Your task to perform on an android device: Set the phone to "Do not disturb". Image 0: 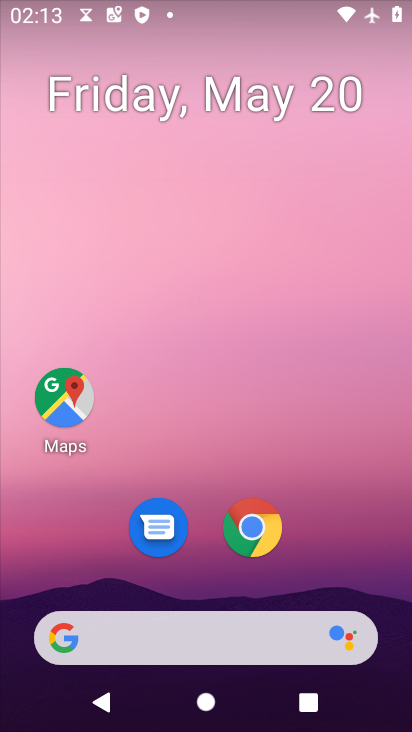
Step 0: press home button
Your task to perform on an android device: Set the phone to "Do not disturb". Image 1: 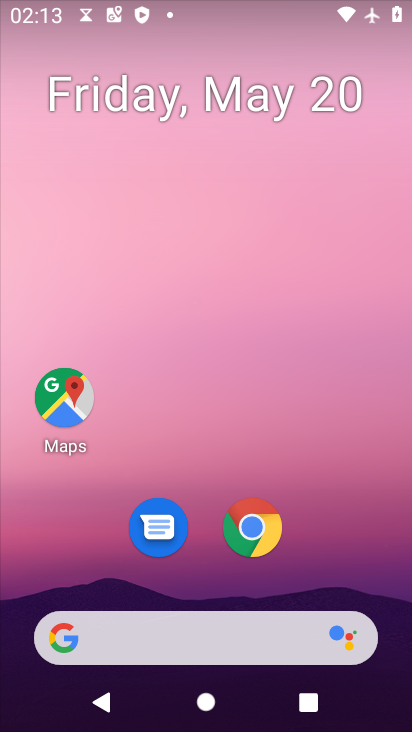
Step 1: drag from (200, 635) to (322, 138)
Your task to perform on an android device: Set the phone to "Do not disturb". Image 2: 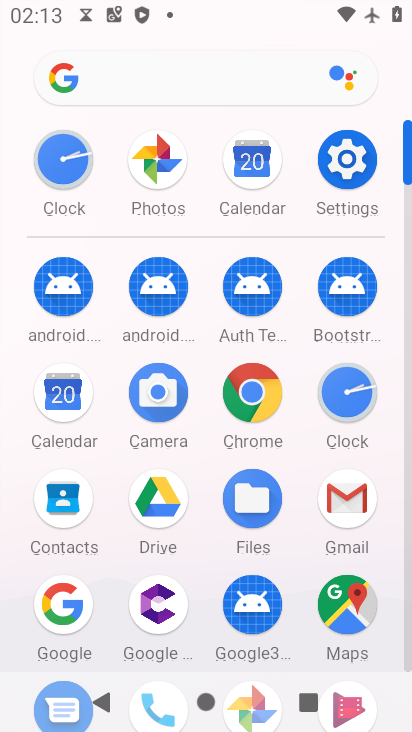
Step 2: click (351, 163)
Your task to perform on an android device: Set the phone to "Do not disturb". Image 3: 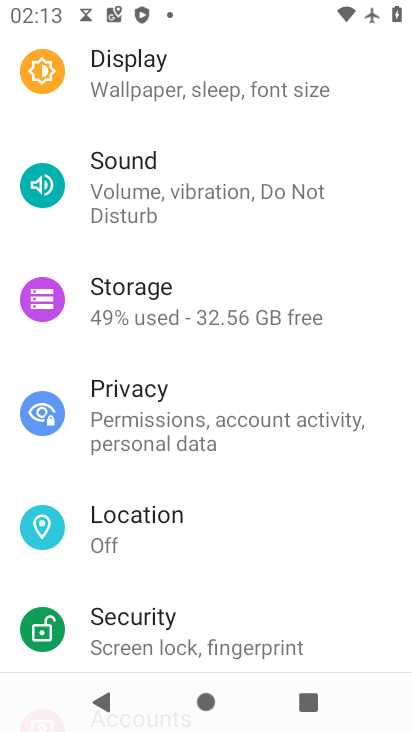
Step 3: click (182, 192)
Your task to perform on an android device: Set the phone to "Do not disturb". Image 4: 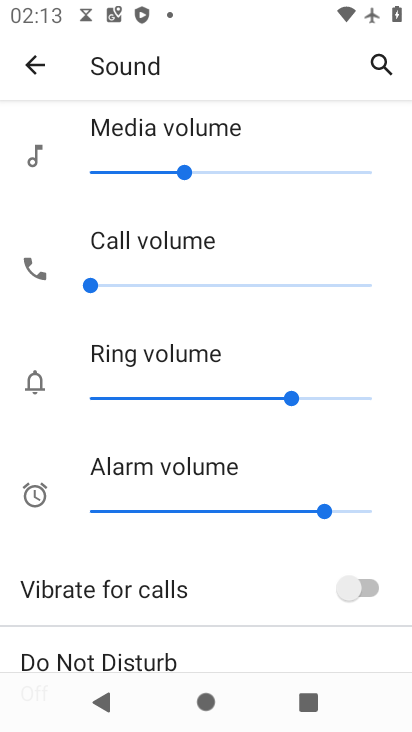
Step 4: drag from (217, 593) to (292, 229)
Your task to perform on an android device: Set the phone to "Do not disturb". Image 5: 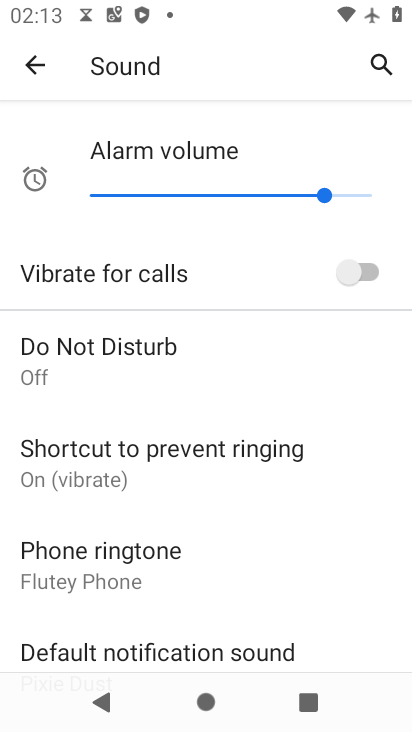
Step 5: click (116, 357)
Your task to perform on an android device: Set the phone to "Do not disturb". Image 6: 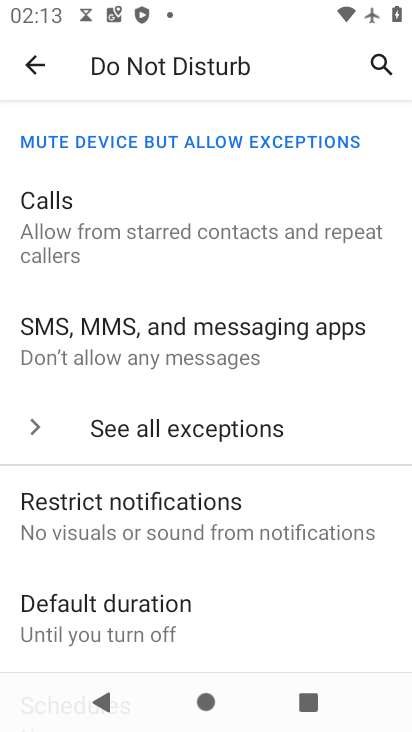
Step 6: drag from (196, 611) to (270, 163)
Your task to perform on an android device: Set the phone to "Do not disturb". Image 7: 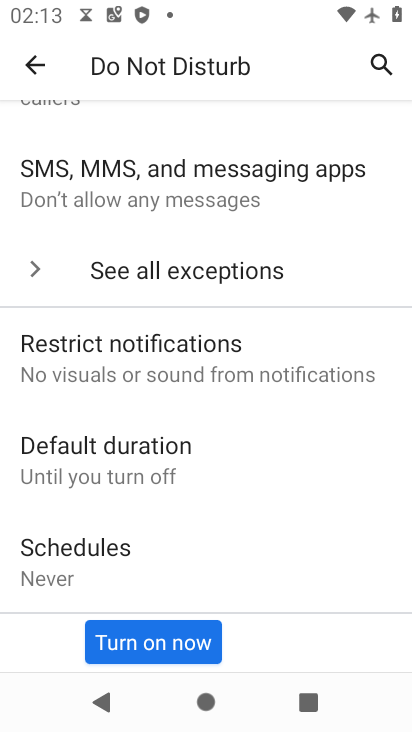
Step 7: click (155, 641)
Your task to perform on an android device: Set the phone to "Do not disturb". Image 8: 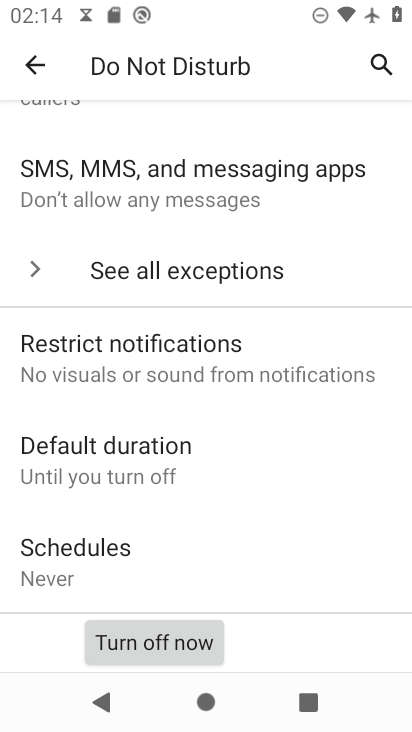
Step 8: task complete